Your task to perform on an android device: Open the calendar and show me this week's events? Image 0: 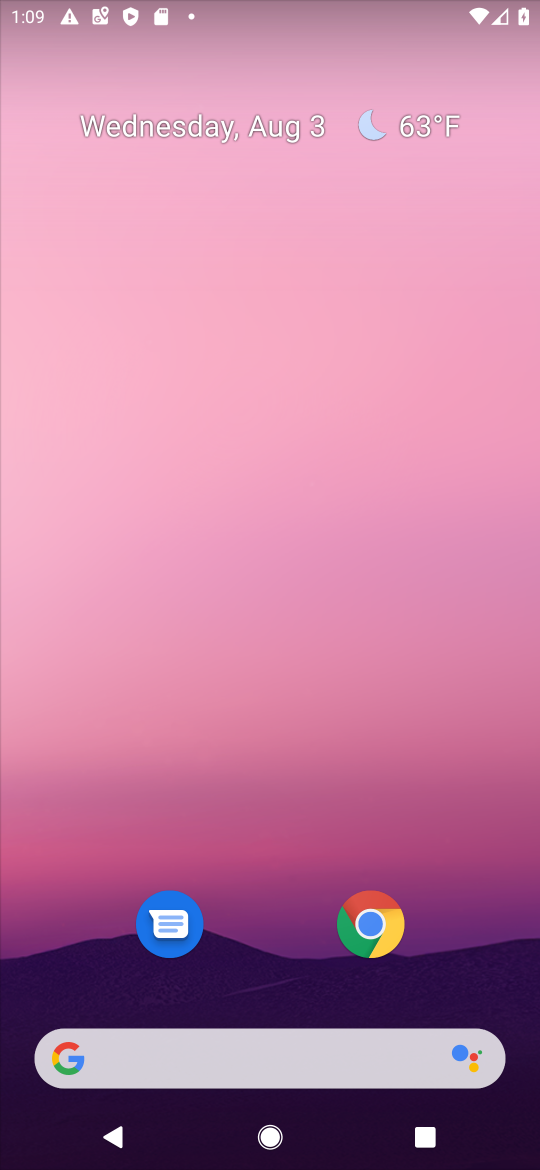
Step 0: drag from (243, 949) to (381, 23)
Your task to perform on an android device: Open the calendar and show me this week's events? Image 1: 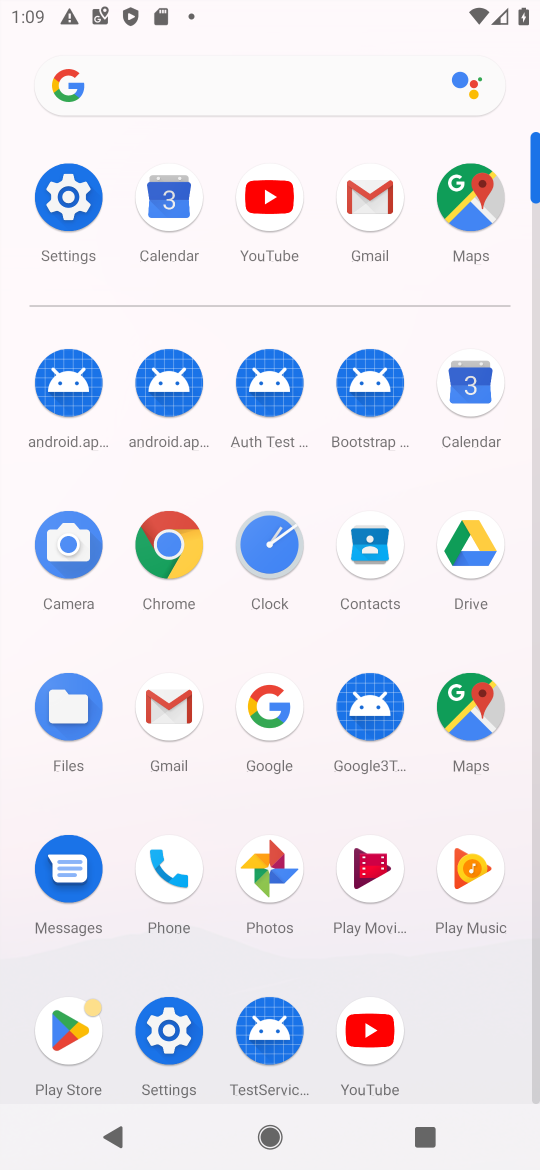
Step 1: click (457, 389)
Your task to perform on an android device: Open the calendar and show me this week's events? Image 2: 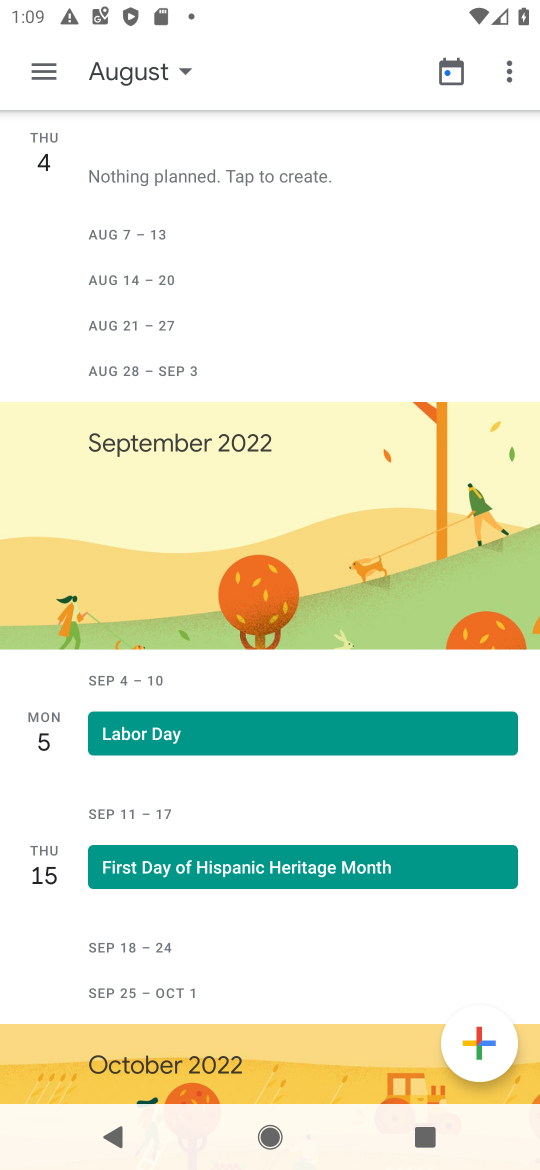
Step 2: click (148, 80)
Your task to perform on an android device: Open the calendar and show me this week's events? Image 3: 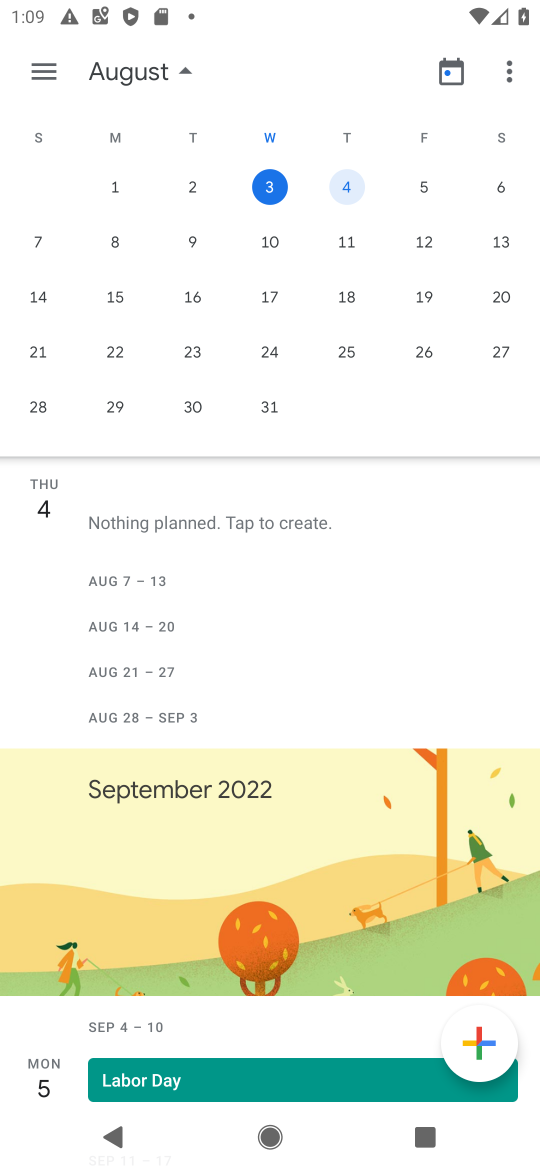
Step 3: click (352, 189)
Your task to perform on an android device: Open the calendar and show me this week's events? Image 4: 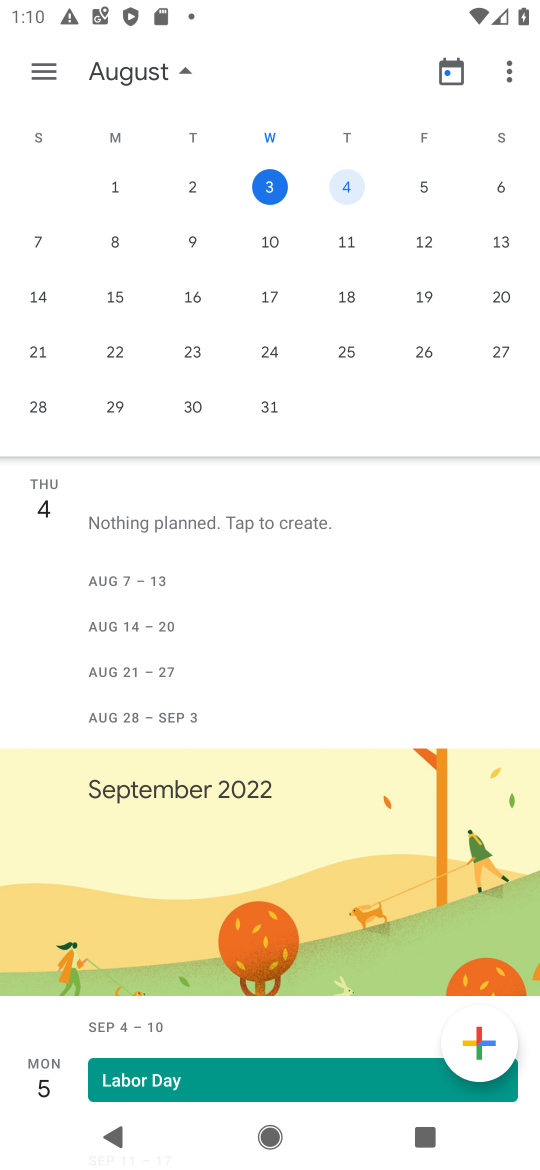
Step 4: task complete